Your task to perform on an android device: set the stopwatch Image 0: 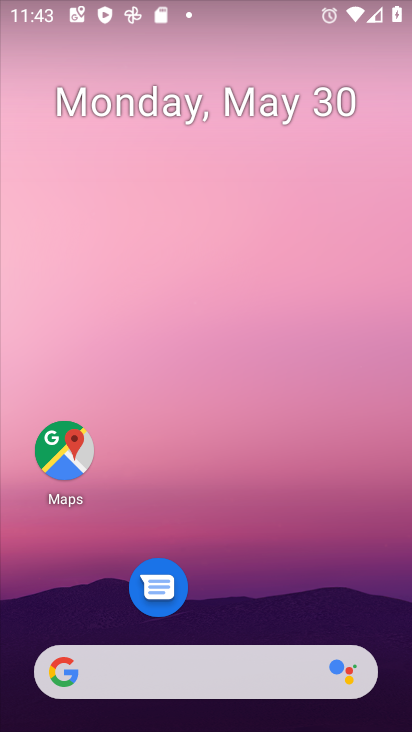
Step 0: drag from (202, 625) to (198, 12)
Your task to perform on an android device: set the stopwatch Image 1: 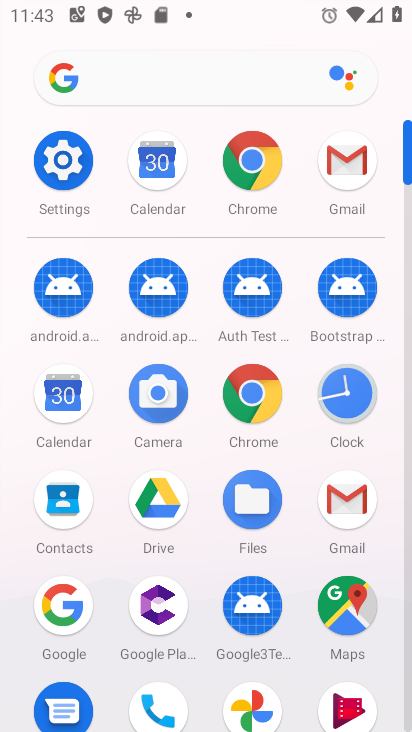
Step 1: click (326, 385)
Your task to perform on an android device: set the stopwatch Image 2: 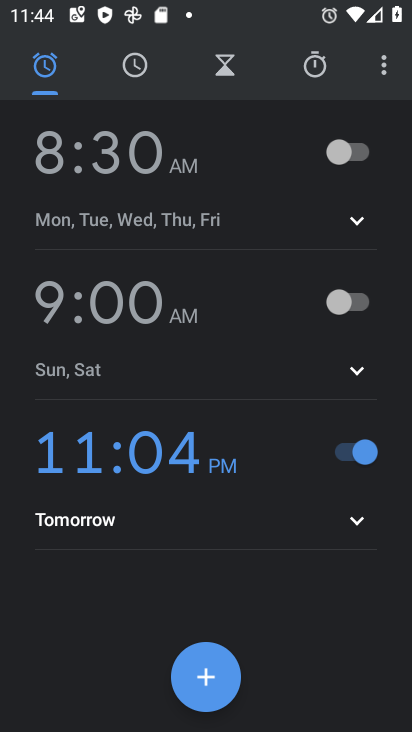
Step 2: click (303, 57)
Your task to perform on an android device: set the stopwatch Image 3: 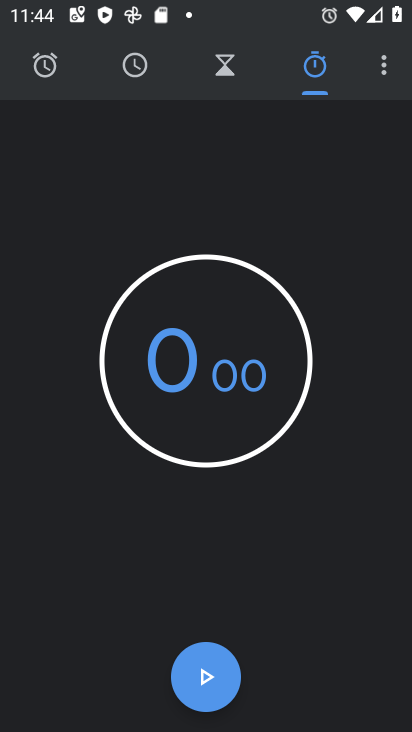
Step 3: task complete